Your task to perform on an android device: Open the Play Movies app and select the watchlist tab. Image 0: 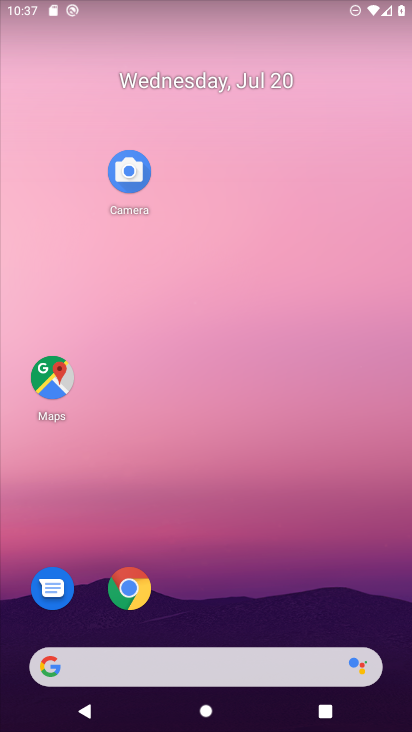
Step 0: press home button
Your task to perform on an android device: Open the Play Movies app and select the watchlist tab. Image 1: 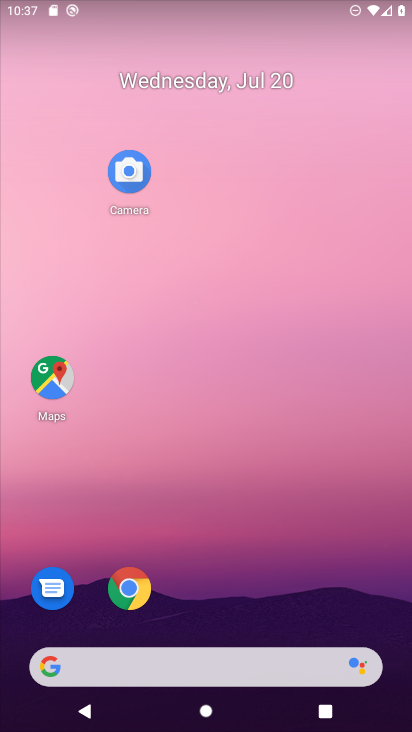
Step 1: drag from (270, 590) to (244, 157)
Your task to perform on an android device: Open the Play Movies app and select the watchlist tab. Image 2: 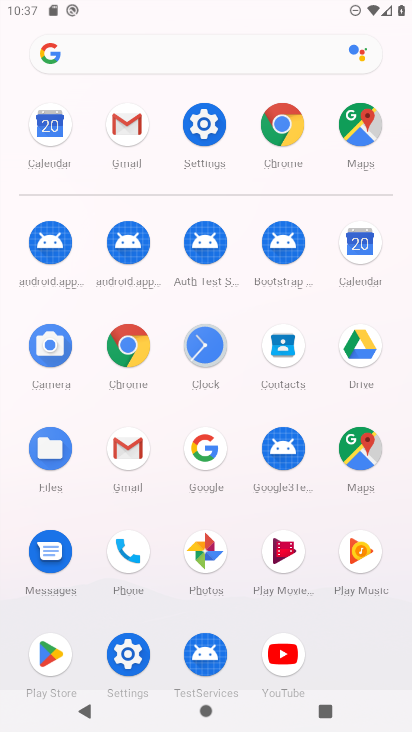
Step 2: click (285, 559)
Your task to perform on an android device: Open the Play Movies app and select the watchlist tab. Image 3: 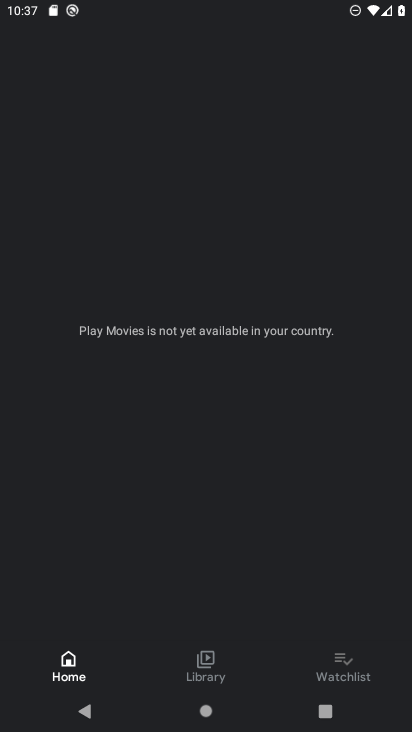
Step 3: click (336, 658)
Your task to perform on an android device: Open the Play Movies app and select the watchlist tab. Image 4: 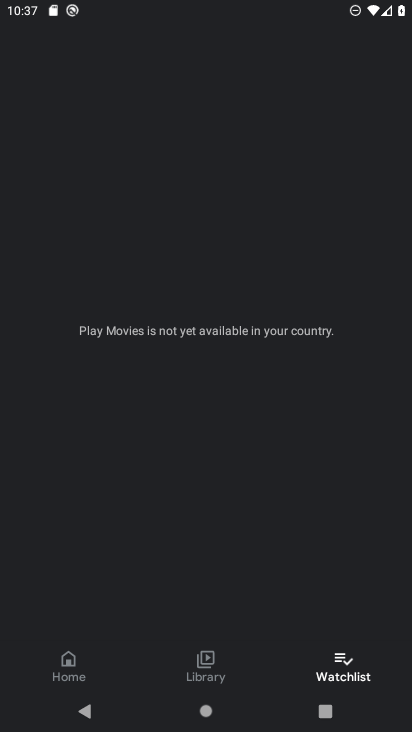
Step 4: task complete